Your task to perform on an android device: Open the calendar app, open the side menu, and click the "Day" option Image 0: 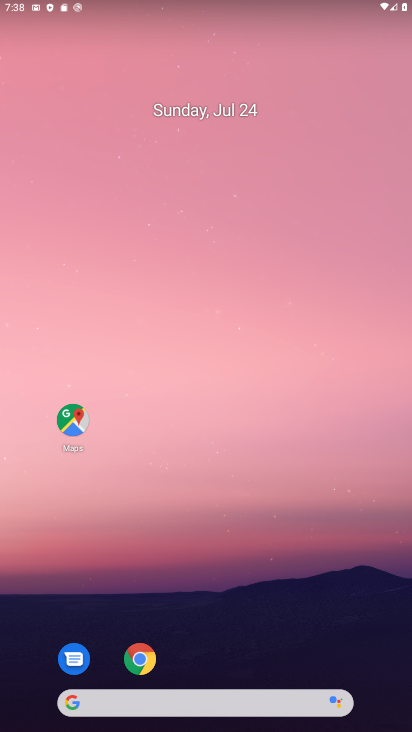
Step 0: press back button
Your task to perform on an android device: Open the calendar app, open the side menu, and click the "Day" option Image 1: 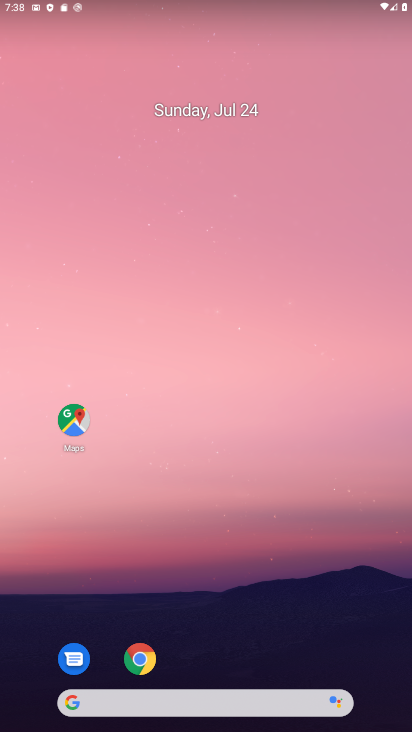
Step 1: click (277, 152)
Your task to perform on an android device: Open the calendar app, open the side menu, and click the "Day" option Image 2: 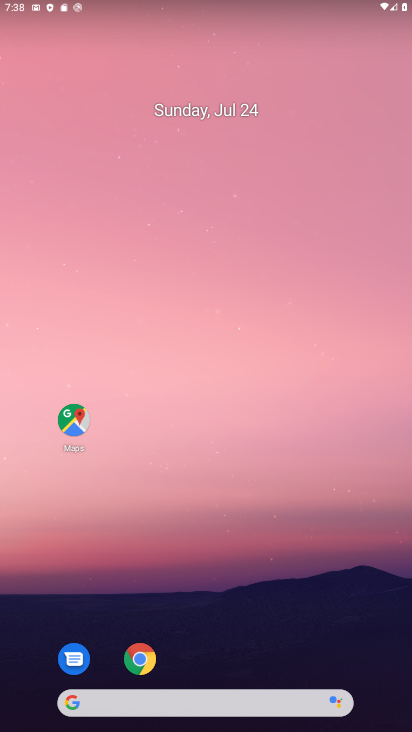
Step 2: drag from (289, 535) to (265, 24)
Your task to perform on an android device: Open the calendar app, open the side menu, and click the "Day" option Image 3: 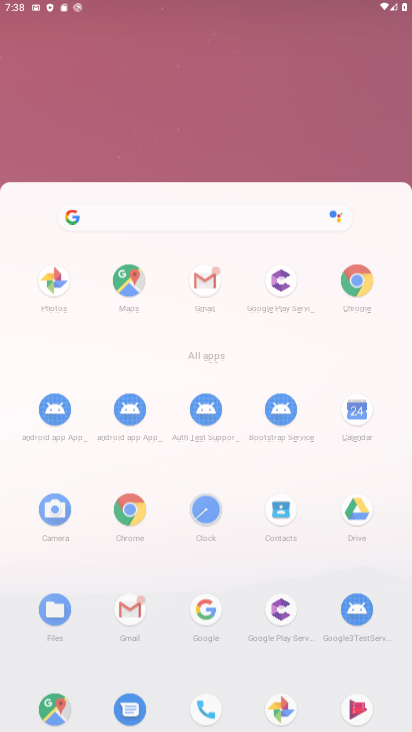
Step 3: drag from (239, 671) to (241, 163)
Your task to perform on an android device: Open the calendar app, open the side menu, and click the "Day" option Image 4: 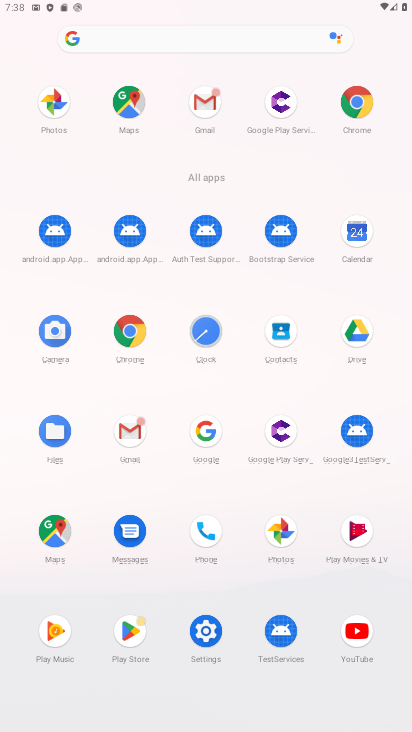
Step 4: click (355, 229)
Your task to perform on an android device: Open the calendar app, open the side menu, and click the "Day" option Image 5: 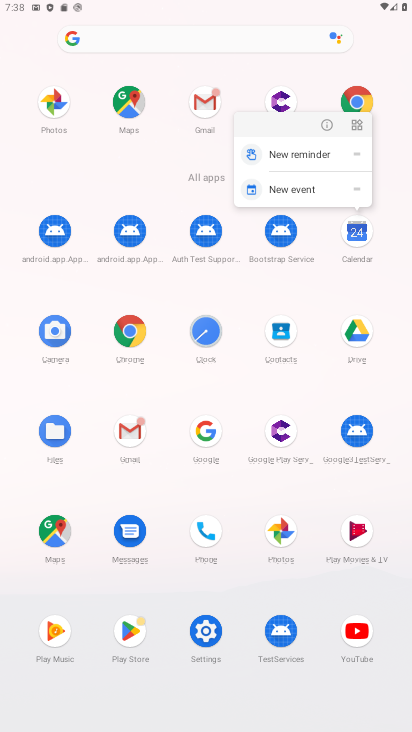
Step 5: click (360, 237)
Your task to perform on an android device: Open the calendar app, open the side menu, and click the "Day" option Image 6: 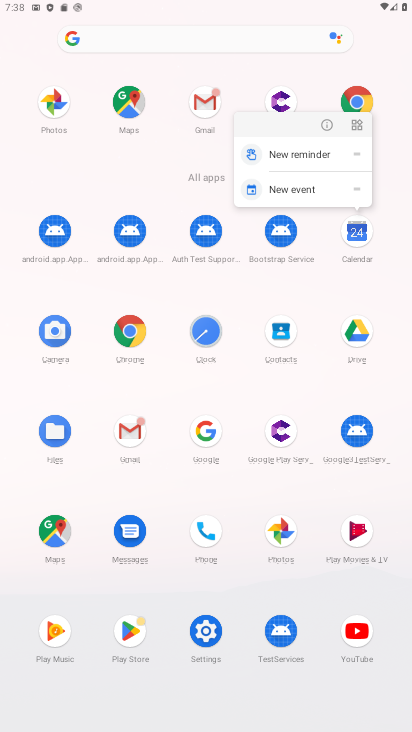
Step 6: click (361, 236)
Your task to perform on an android device: Open the calendar app, open the side menu, and click the "Day" option Image 7: 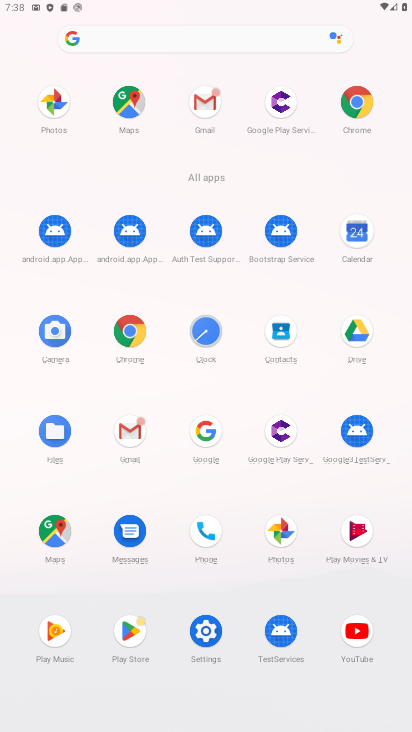
Step 7: click (361, 236)
Your task to perform on an android device: Open the calendar app, open the side menu, and click the "Day" option Image 8: 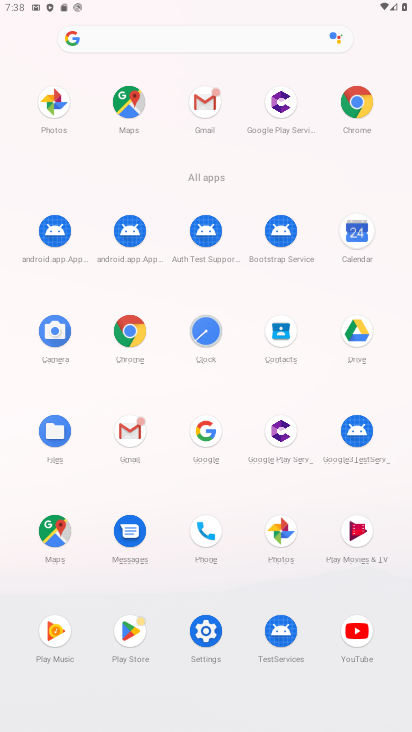
Step 8: click (360, 236)
Your task to perform on an android device: Open the calendar app, open the side menu, and click the "Day" option Image 9: 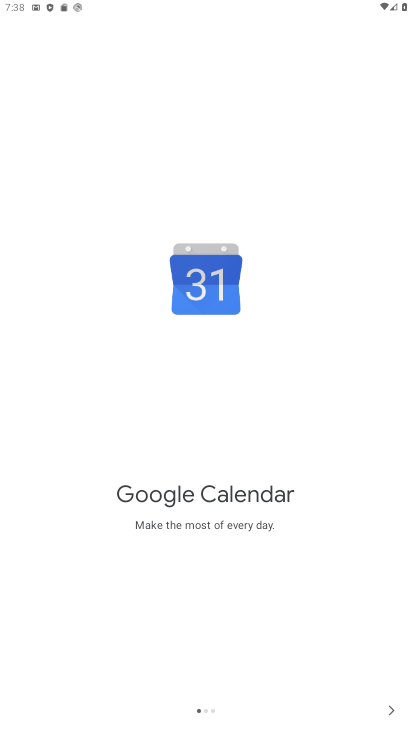
Step 9: click (386, 709)
Your task to perform on an android device: Open the calendar app, open the side menu, and click the "Day" option Image 10: 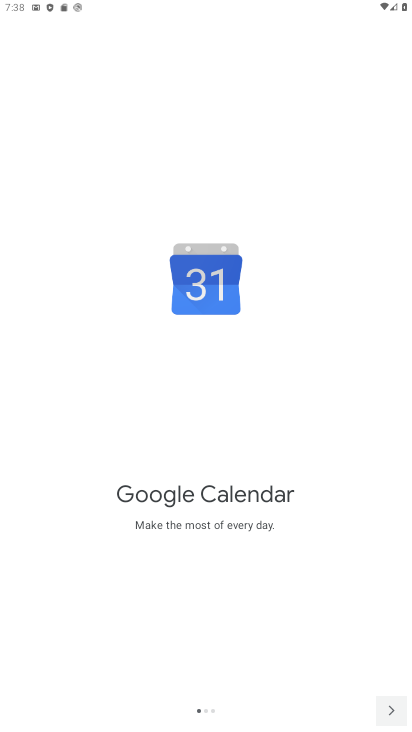
Step 10: click (388, 709)
Your task to perform on an android device: Open the calendar app, open the side menu, and click the "Day" option Image 11: 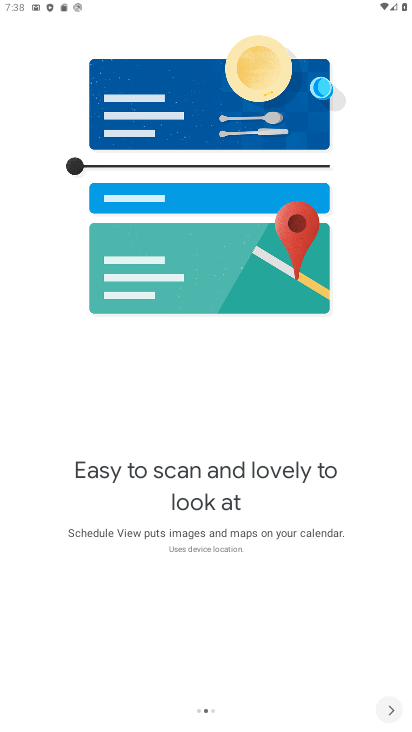
Step 11: click (392, 711)
Your task to perform on an android device: Open the calendar app, open the side menu, and click the "Day" option Image 12: 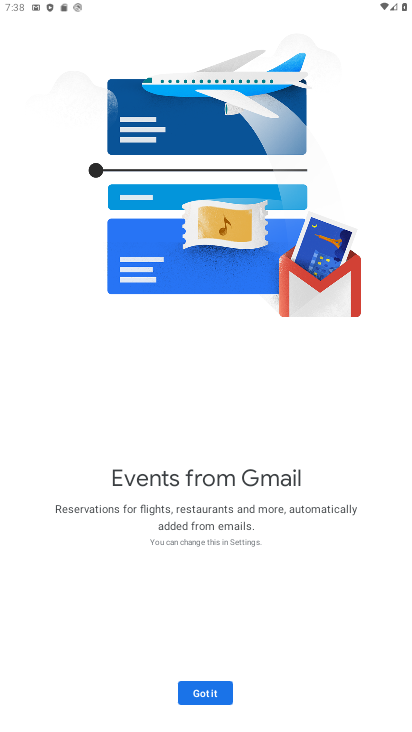
Step 12: click (217, 687)
Your task to perform on an android device: Open the calendar app, open the side menu, and click the "Day" option Image 13: 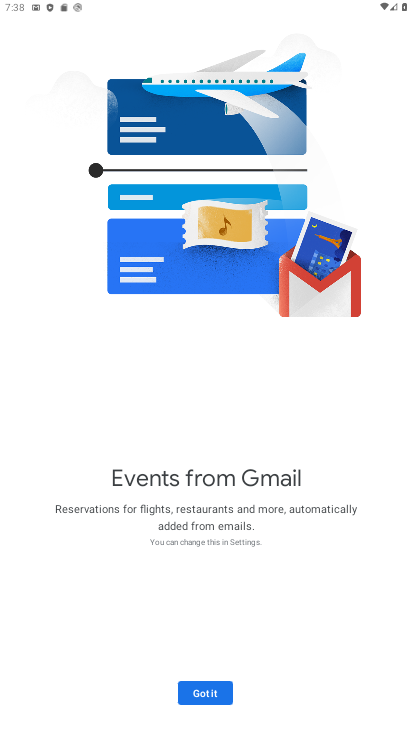
Step 13: click (216, 689)
Your task to perform on an android device: Open the calendar app, open the side menu, and click the "Day" option Image 14: 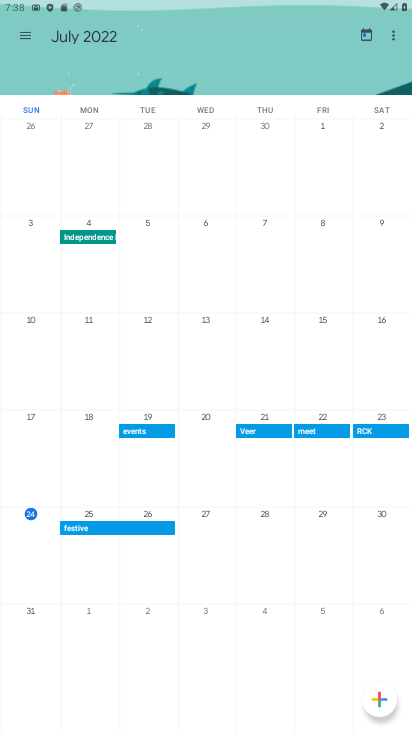
Step 14: click (12, 31)
Your task to perform on an android device: Open the calendar app, open the side menu, and click the "Day" option Image 15: 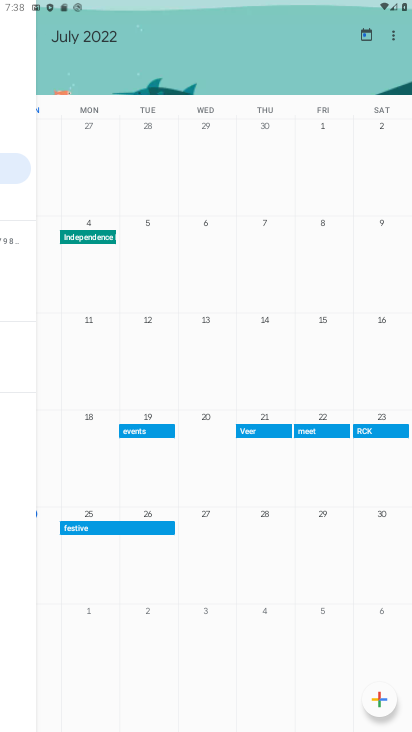
Step 15: click (21, 30)
Your task to perform on an android device: Open the calendar app, open the side menu, and click the "Day" option Image 16: 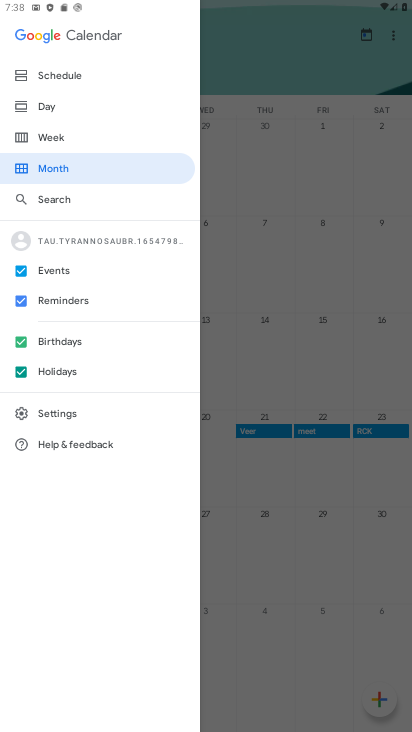
Step 16: click (51, 105)
Your task to perform on an android device: Open the calendar app, open the side menu, and click the "Day" option Image 17: 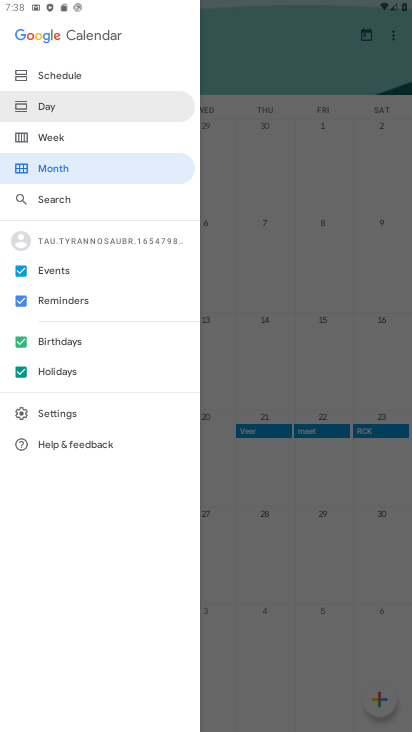
Step 17: click (51, 107)
Your task to perform on an android device: Open the calendar app, open the side menu, and click the "Day" option Image 18: 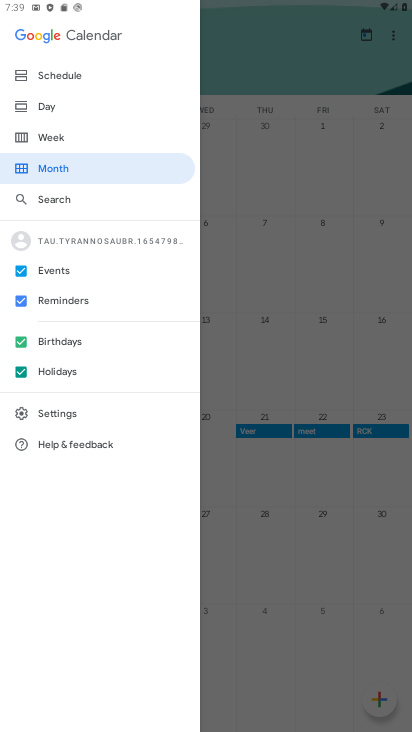
Step 18: click (48, 104)
Your task to perform on an android device: Open the calendar app, open the side menu, and click the "Day" option Image 19: 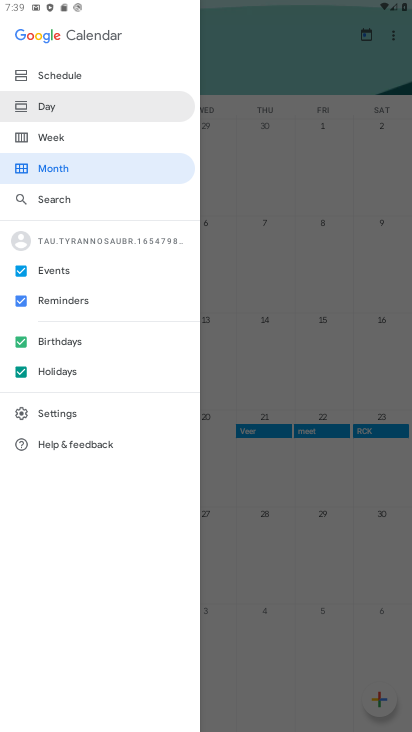
Step 19: click (46, 112)
Your task to perform on an android device: Open the calendar app, open the side menu, and click the "Day" option Image 20: 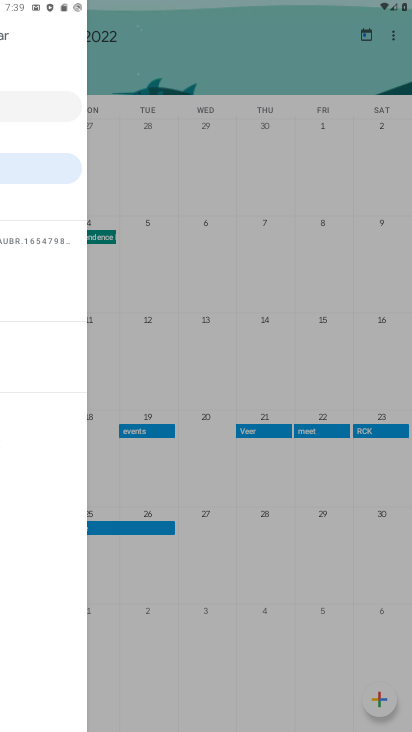
Step 20: click (47, 114)
Your task to perform on an android device: Open the calendar app, open the side menu, and click the "Day" option Image 21: 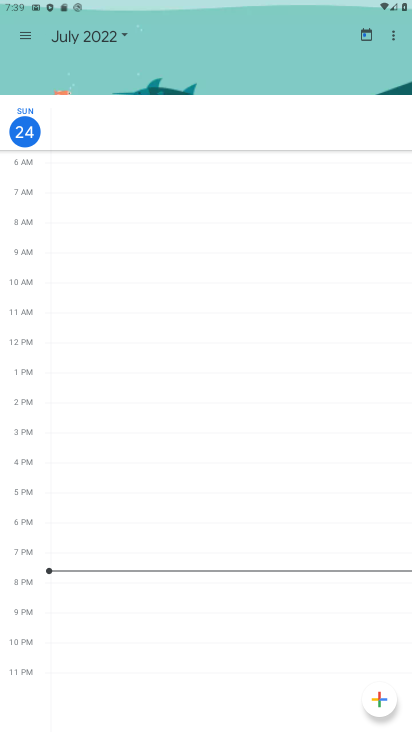
Step 21: task complete